Your task to perform on an android device: Open calendar and show me the fourth week of next month Image 0: 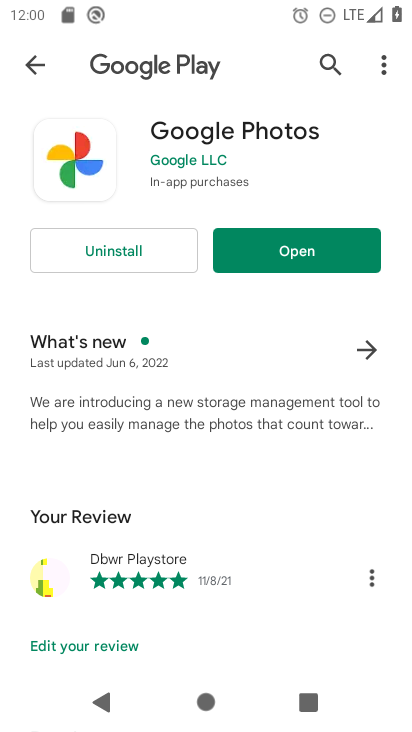
Step 0: press home button
Your task to perform on an android device: Open calendar and show me the fourth week of next month Image 1: 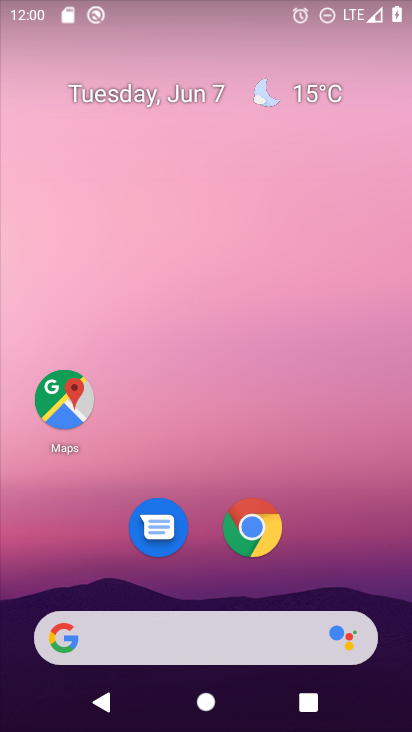
Step 1: drag from (325, 552) to (327, 106)
Your task to perform on an android device: Open calendar and show me the fourth week of next month Image 2: 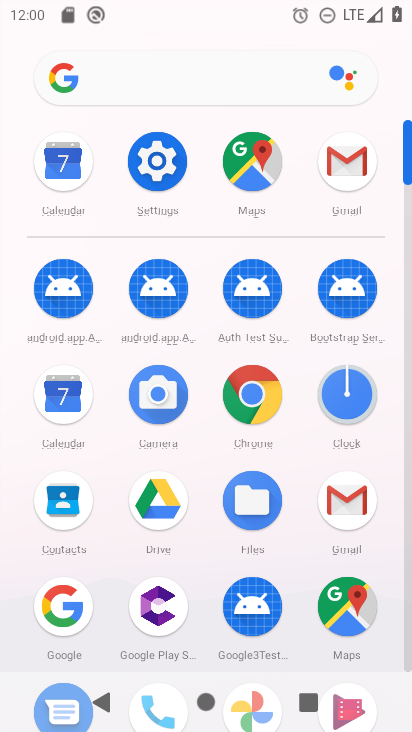
Step 2: drag from (292, 448) to (295, 254)
Your task to perform on an android device: Open calendar and show me the fourth week of next month Image 3: 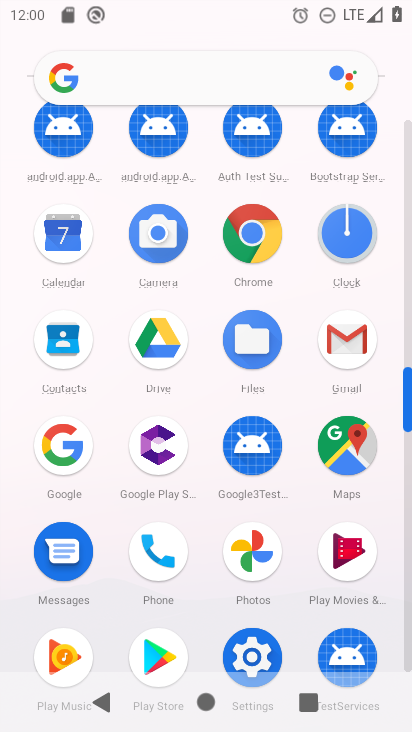
Step 3: drag from (292, 397) to (293, 203)
Your task to perform on an android device: Open calendar and show me the fourth week of next month Image 4: 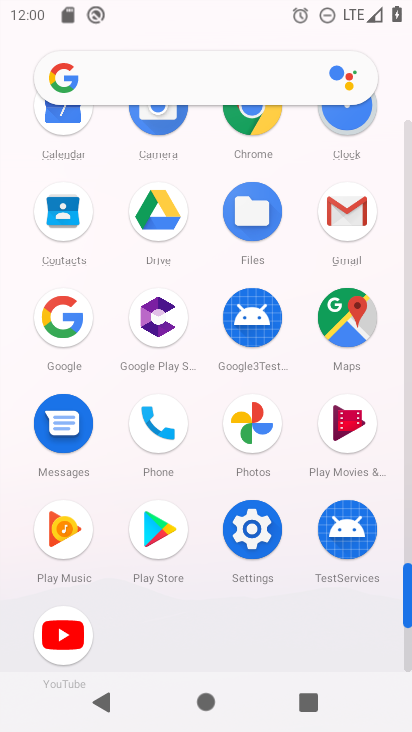
Step 4: drag from (296, 153) to (299, 337)
Your task to perform on an android device: Open calendar and show me the fourth week of next month Image 5: 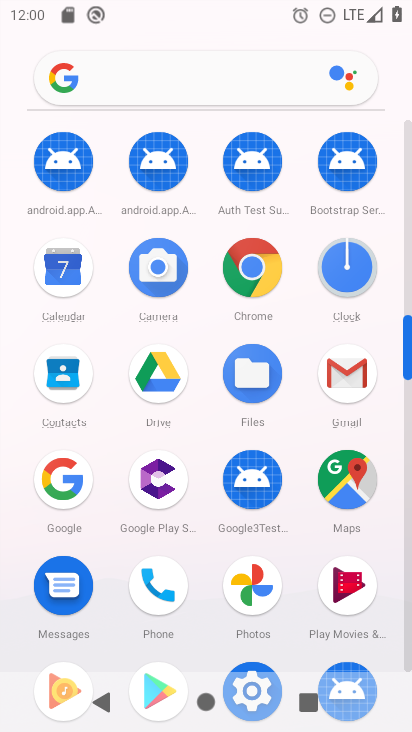
Step 5: click (67, 277)
Your task to perform on an android device: Open calendar and show me the fourth week of next month Image 6: 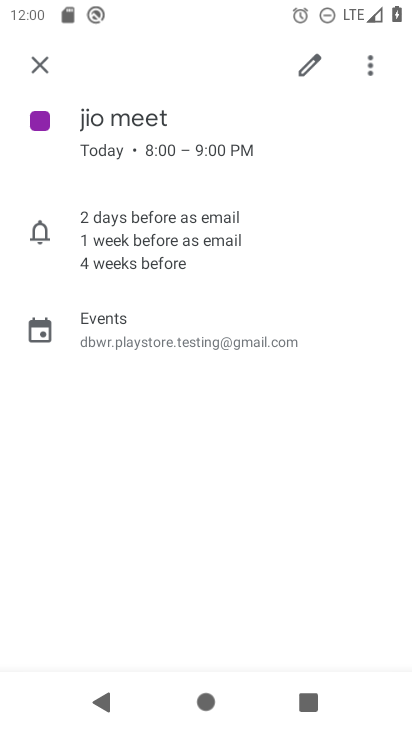
Step 6: click (42, 69)
Your task to perform on an android device: Open calendar and show me the fourth week of next month Image 7: 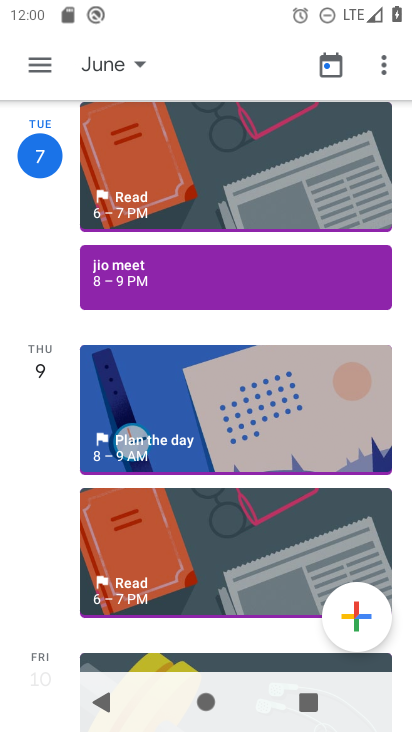
Step 7: click (141, 69)
Your task to perform on an android device: Open calendar and show me the fourth week of next month Image 8: 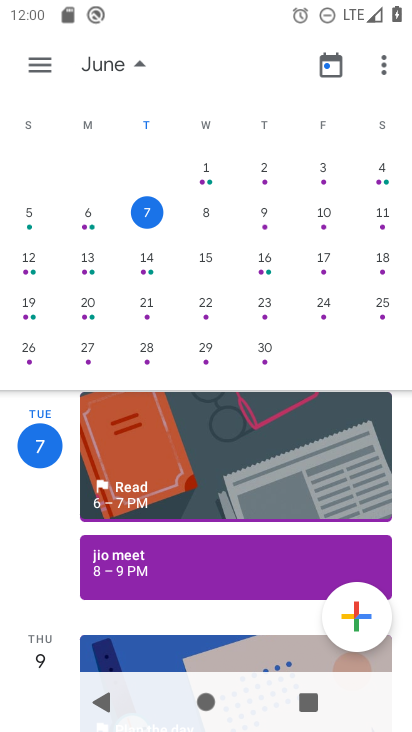
Step 8: drag from (387, 147) to (0, 145)
Your task to perform on an android device: Open calendar and show me the fourth week of next month Image 9: 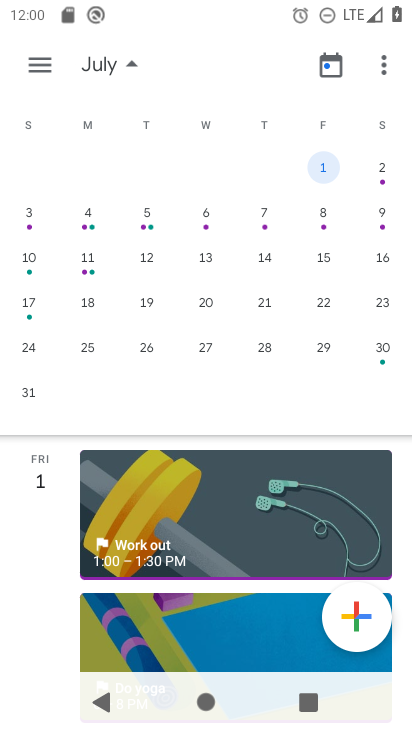
Step 9: click (84, 351)
Your task to perform on an android device: Open calendar and show me the fourth week of next month Image 10: 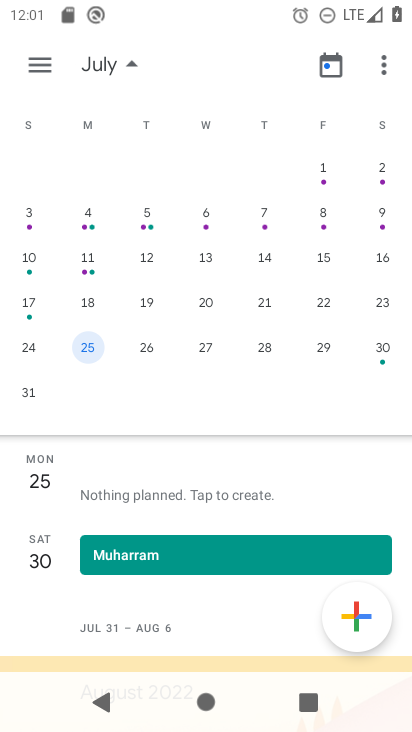
Step 10: task complete